Your task to perform on an android device: Toggle the flashlight Image 0: 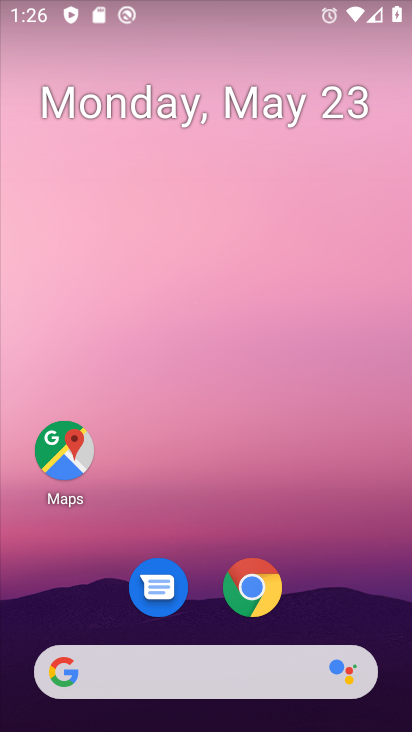
Step 0: drag from (352, 594) to (312, 200)
Your task to perform on an android device: Toggle the flashlight Image 1: 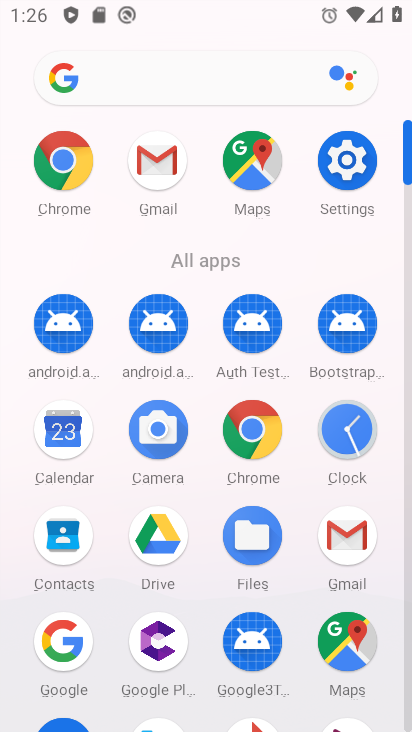
Step 1: click (336, 215)
Your task to perform on an android device: Toggle the flashlight Image 2: 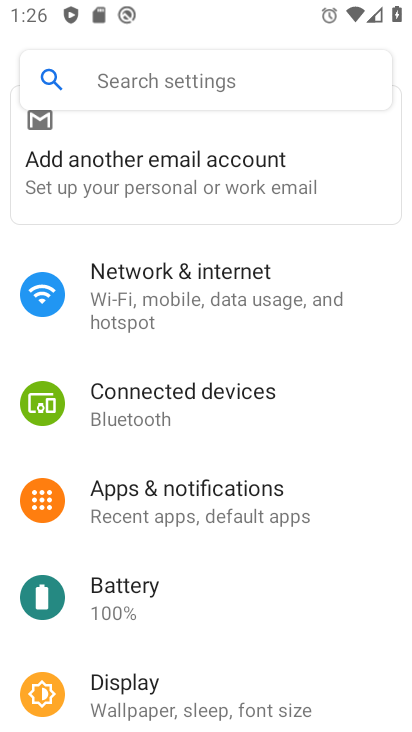
Step 2: click (261, 276)
Your task to perform on an android device: Toggle the flashlight Image 3: 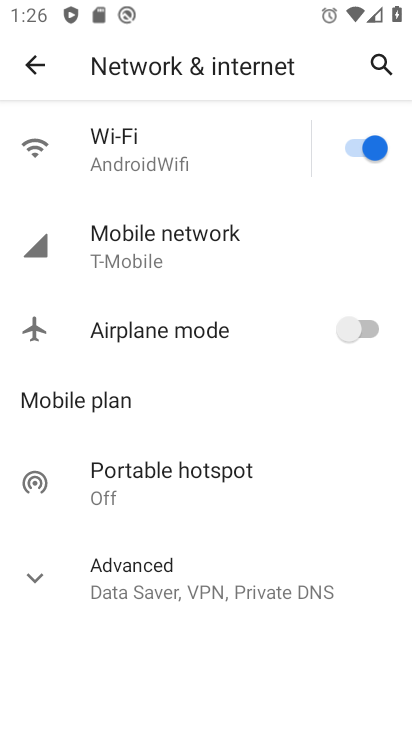
Step 3: task complete